Your task to perform on an android device: set default search engine in the chrome app Image 0: 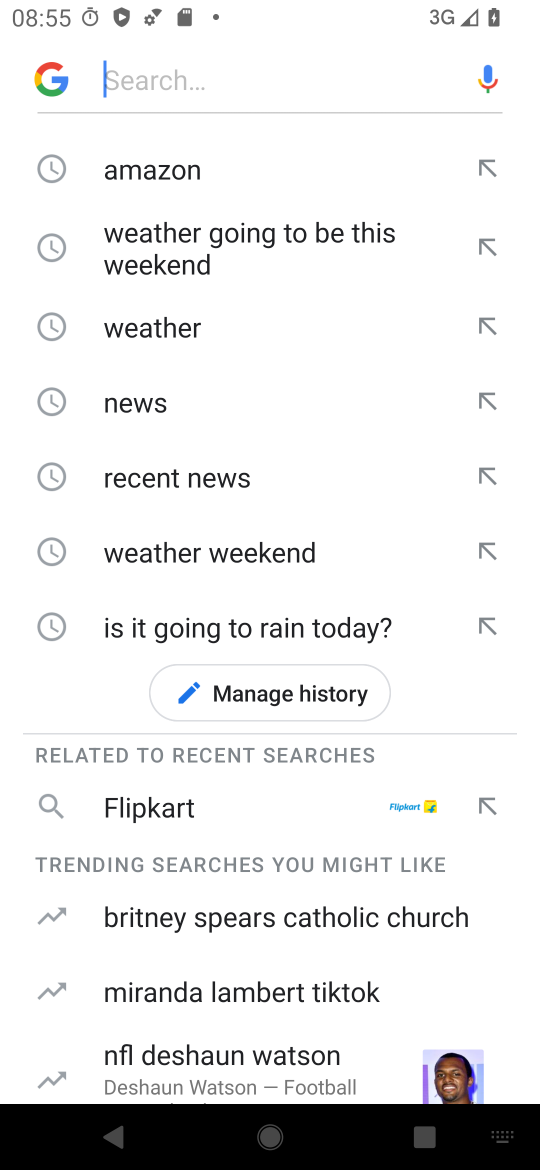
Step 0: press home button
Your task to perform on an android device: set default search engine in the chrome app Image 1: 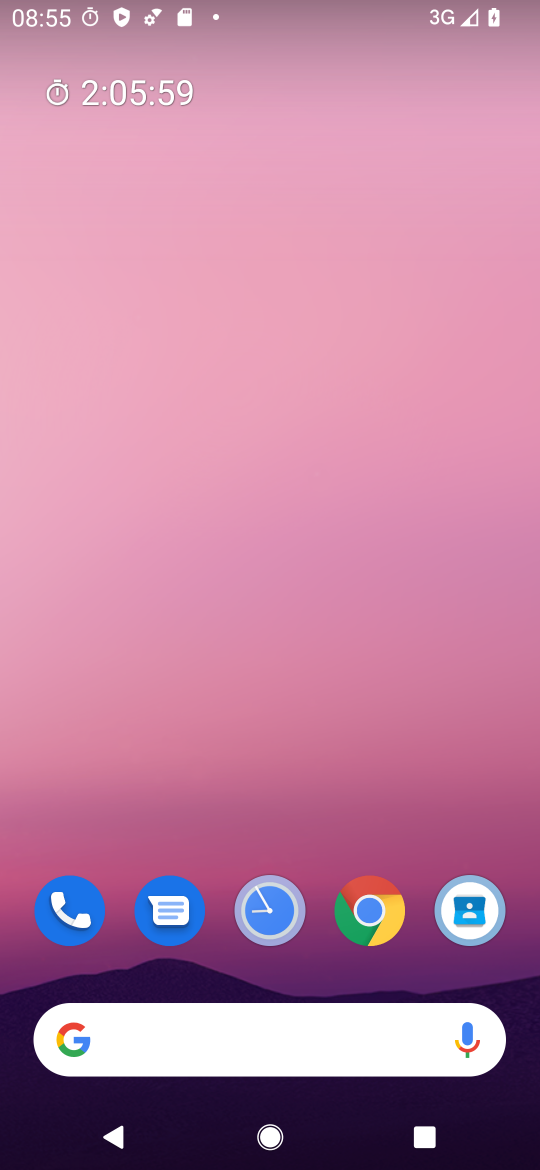
Step 1: drag from (339, 1042) to (382, 82)
Your task to perform on an android device: set default search engine in the chrome app Image 2: 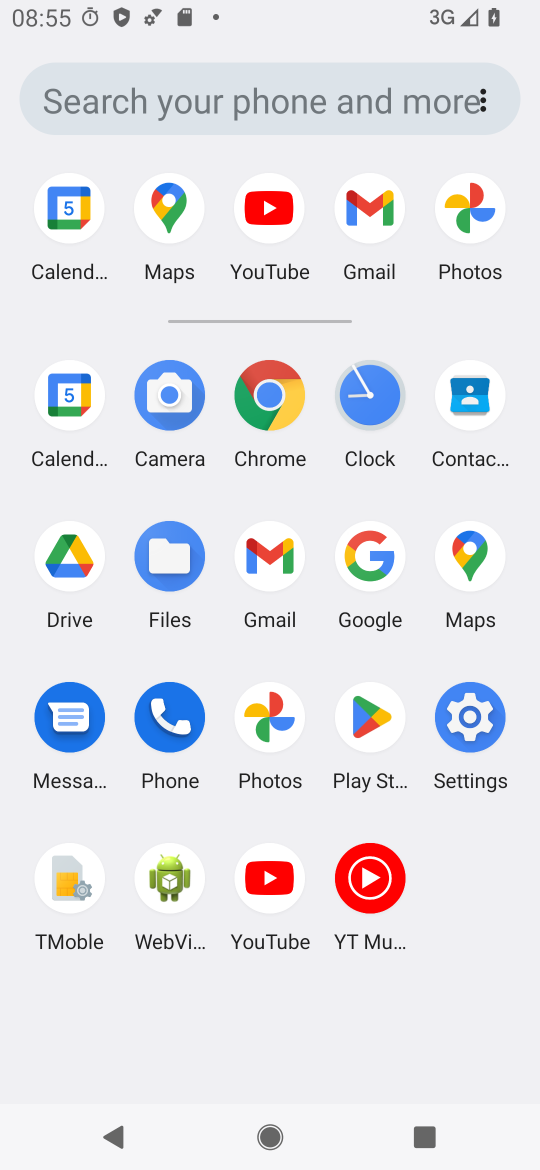
Step 2: click (274, 384)
Your task to perform on an android device: set default search engine in the chrome app Image 3: 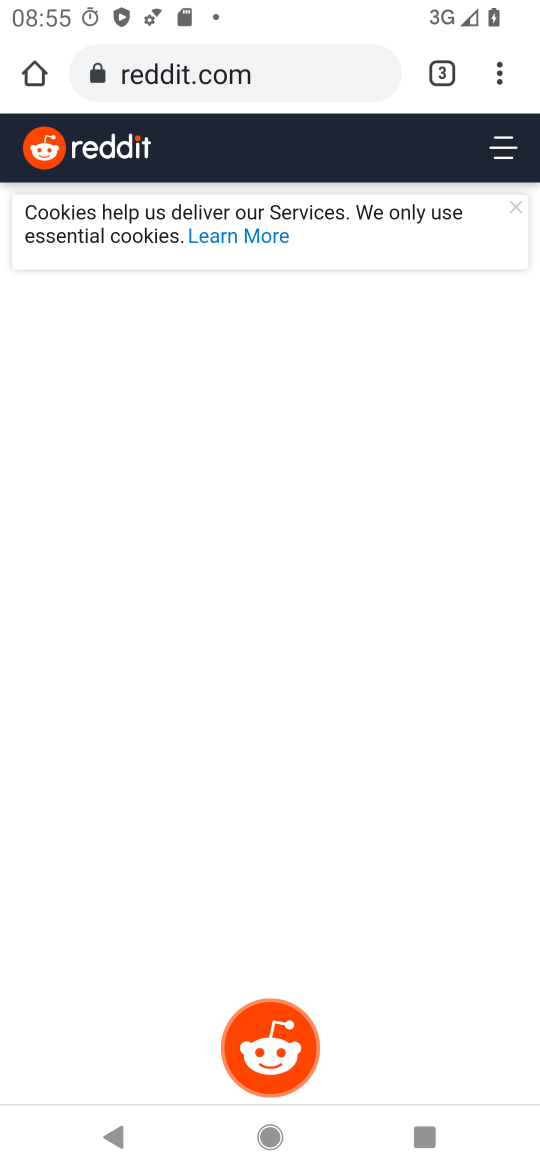
Step 3: click (505, 59)
Your task to perform on an android device: set default search engine in the chrome app Image 4: 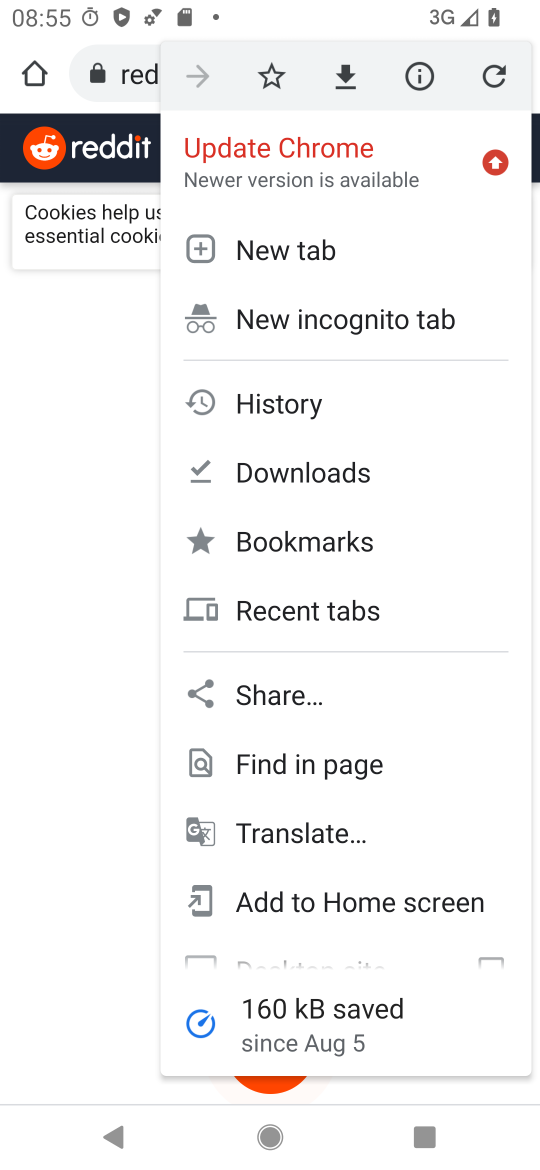
Step 4: drag from (364, 955) to (377, 465)
Your task to perform on an android device: set default search engine in the chrome app Image 5: 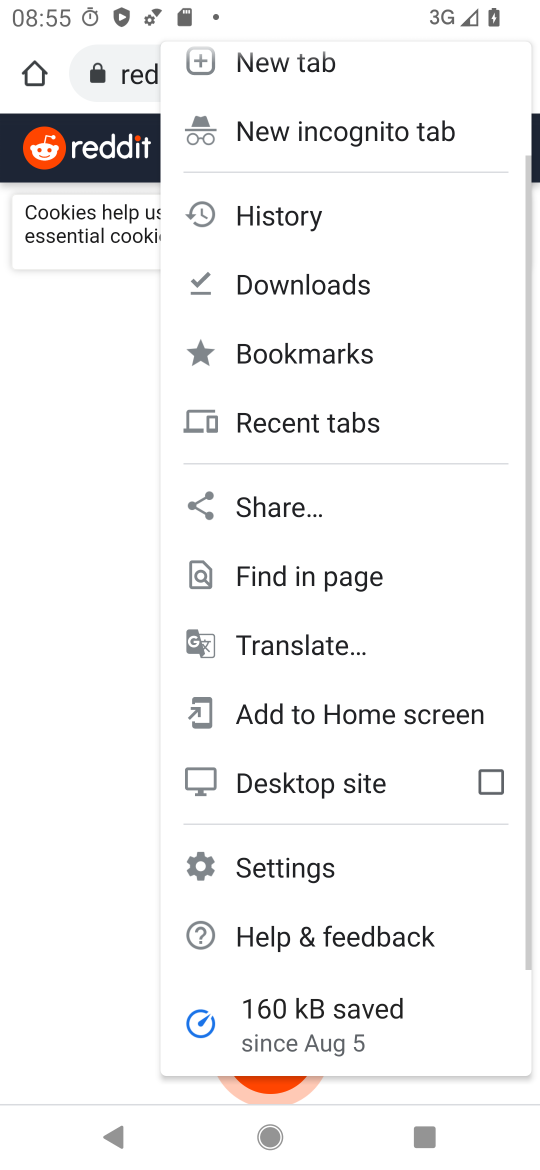
Step 5: click (312, 875)
Your task to perform on an android device: set default search engine in the chrome app Image 6: 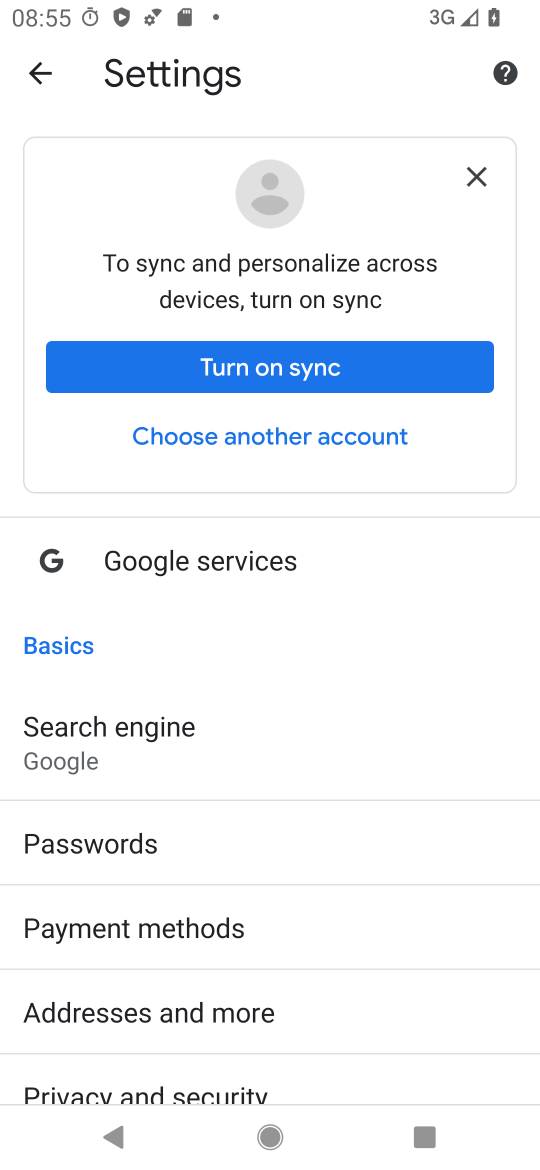
Step 6: click (236, 722)
Your task to perform on an android device: set default search engine in the chrome app Image 7: 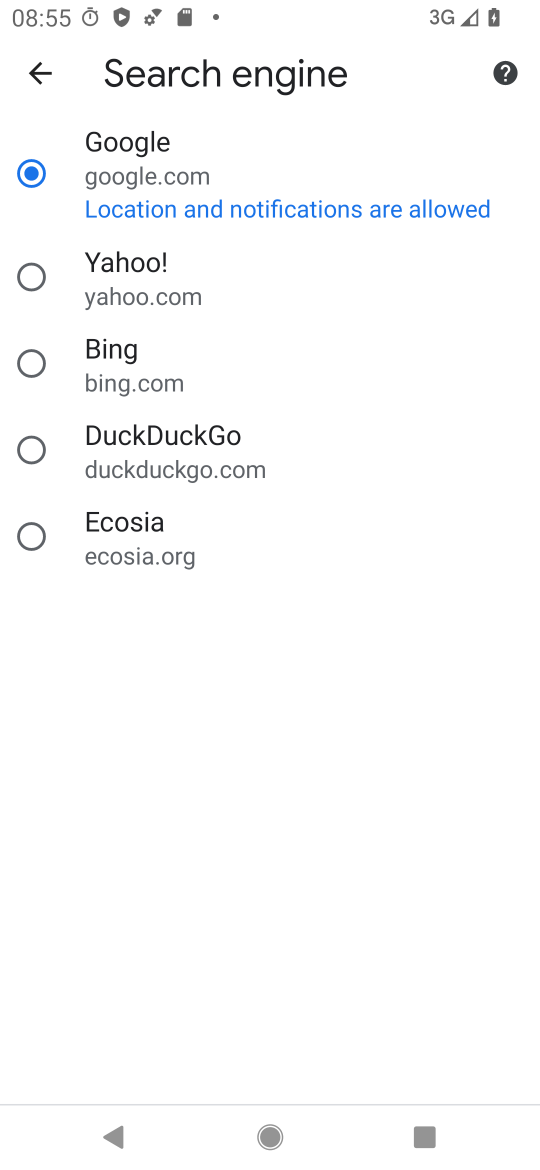
Step 7: task complete